Your task to perform on an android device: turn off location history Image 0: 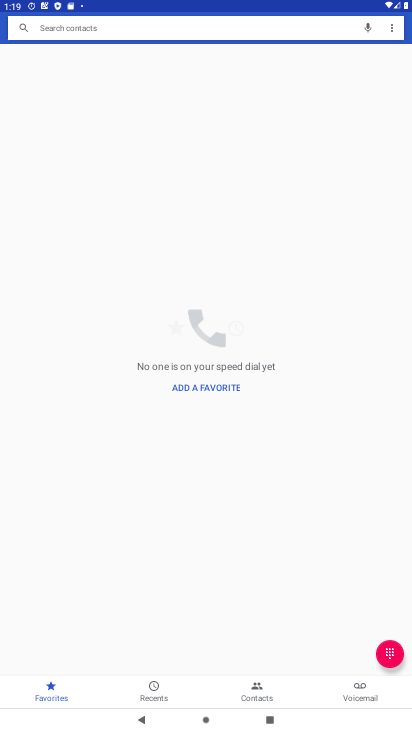
Step 0: press home button
Your task to perform on an android device: turn off location history Image 1: 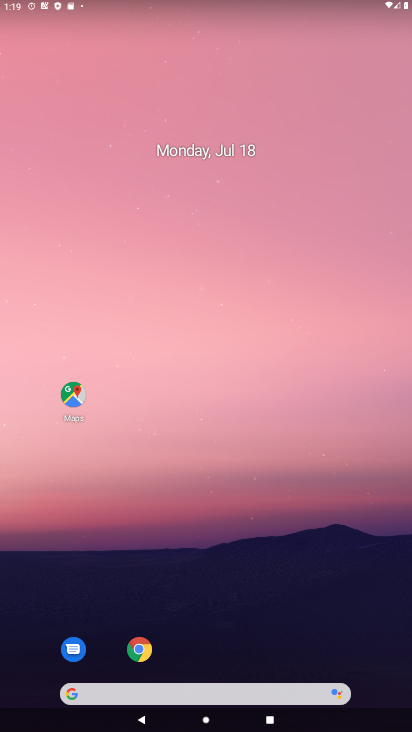
Step 1: drag from (183, 639) to (194, 45)
Your task to perform on an android device: turn off location history Image 2: 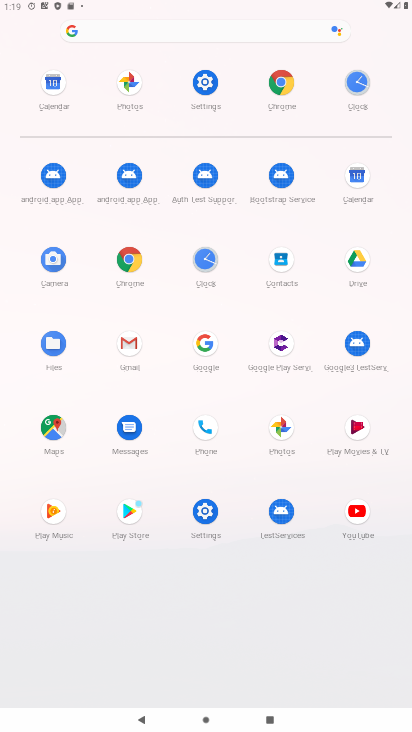
Step 2: click (198, 512)
Your task to perform on an android device: turn off location history Image 3: 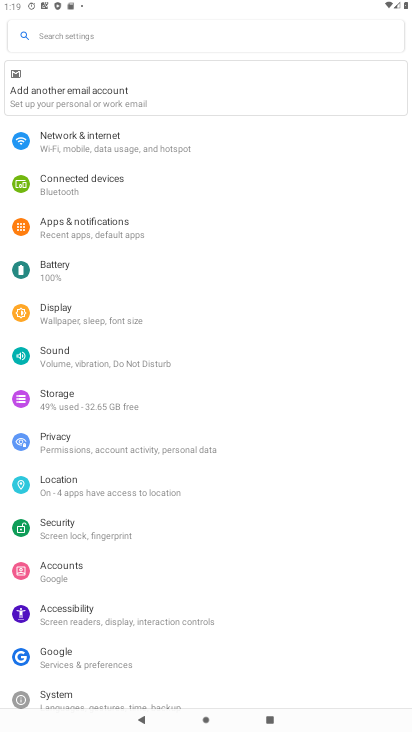
Step 3: click (32, 484)
Your task to perform on an android device: turn off location history Image 4: 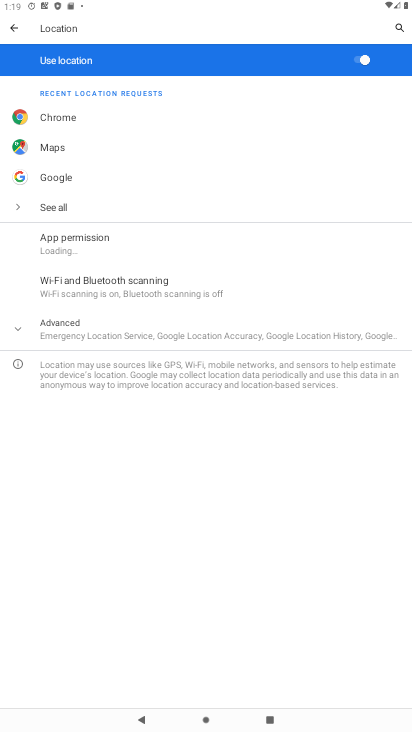
Step 4: click (139, 340)
Your task to perform on an android device: turn off location history Image 5: 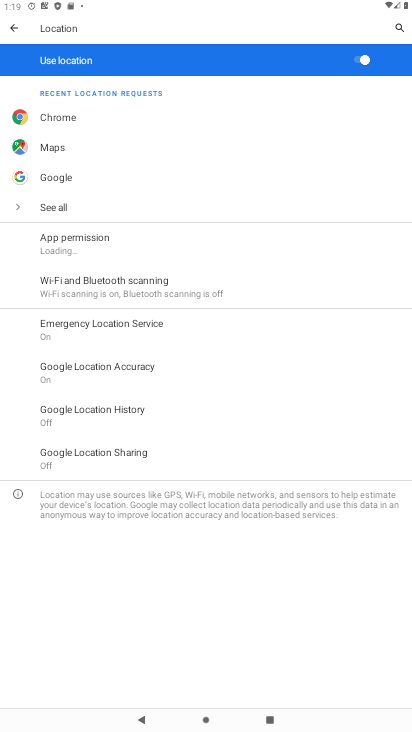
Step 5: click (131, 404)
Your task to perform on an android device: turn off location history Image 6: 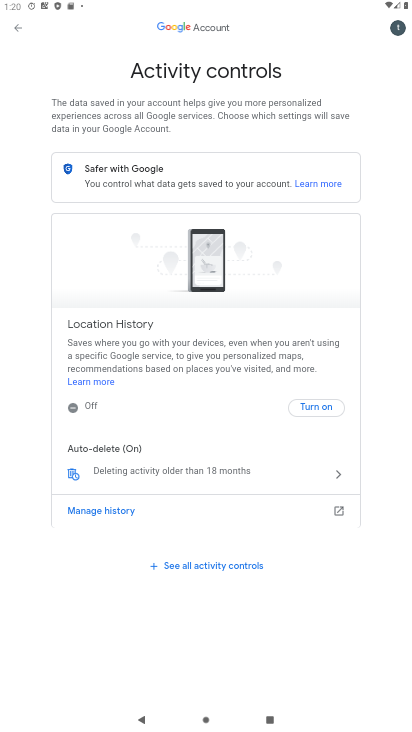
Step 6: task complete